Your task to perform on an android device: What's the weather going to be tomorrow? Image 0: 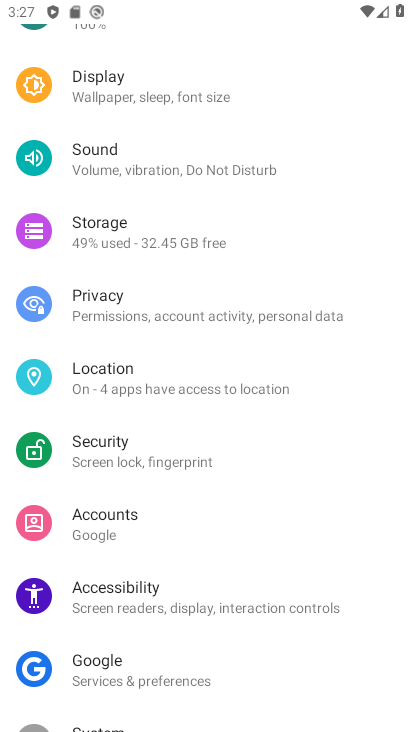
Step 0: press home button
Your task to perform on an android device: What's the weather going to be tomorrow? Image 1: 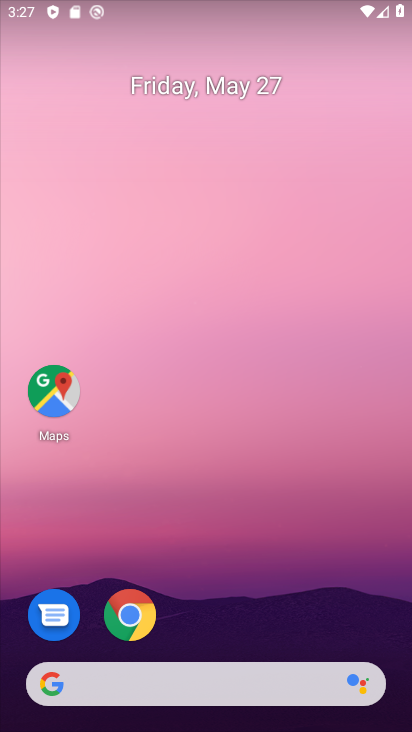
Step 1: click (139, 688)
Your task to perform on an android device: What's the weather going to be tomorrow? Image 2: 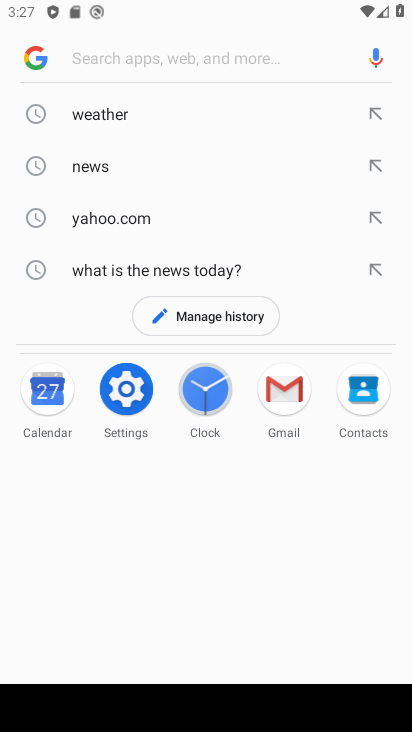
Step 2: click (148, 120)
Your task to perform on an android device: What's the weather going to be tomorrow? Image 3: 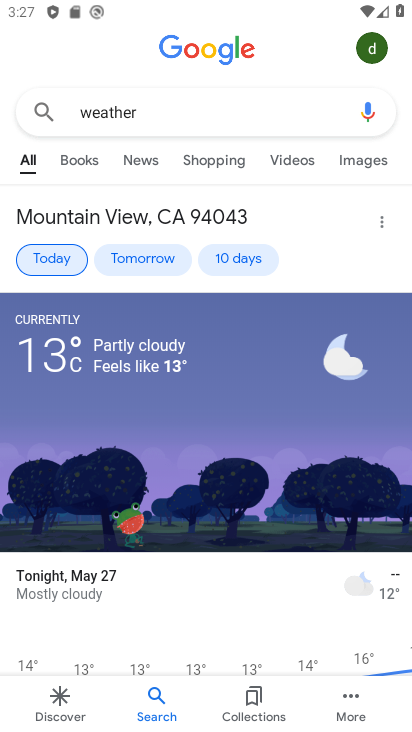
Step 3: click (120, 263)
Your task to perform on an android device: What's the weather going to be tomorrow? Image 4: 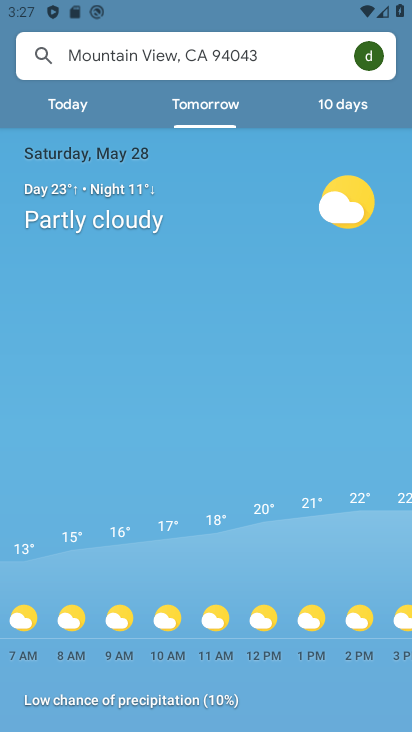
Step 4: task complete